Your task to perform on an android device: Go to Yahoo.com Image 0: 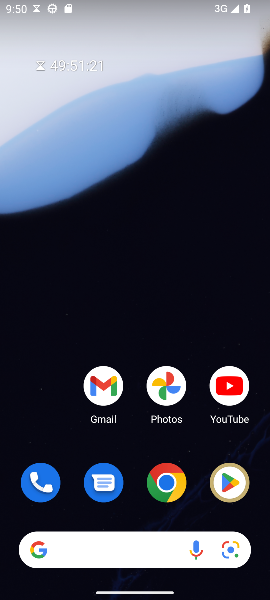
Step 0: drag from (143, 495) to (178, 128)
Your task to perform on an android device: Go to Yahoo.com Image 1: 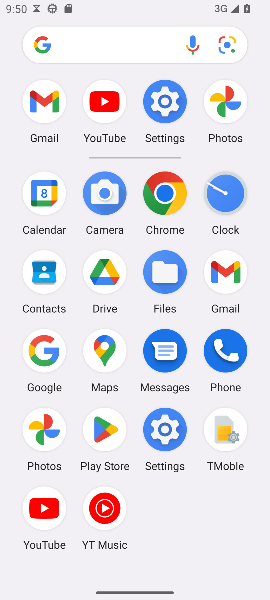
Step 1: click (167, 186)
Your task to perform on an android device: Go to Yahoo.com Image 2: 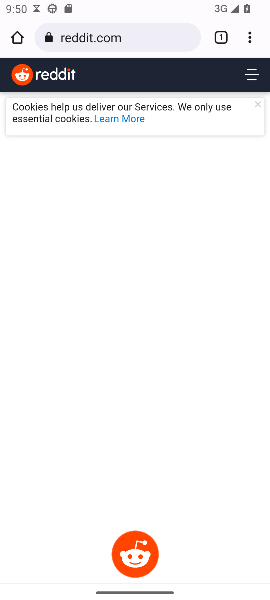
Step 2: press back button
Your task to perform on an android device: Go to Yahoo.com Image 3: 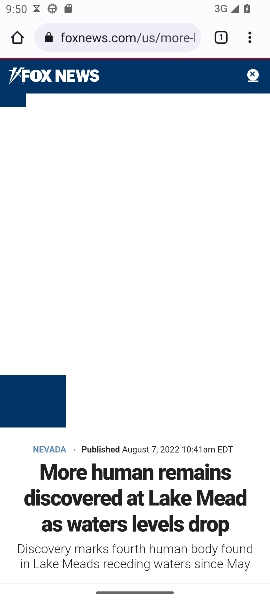
Step 3: press back button
Your task to perform on an android device: Go to Yahoo.com Image 4: 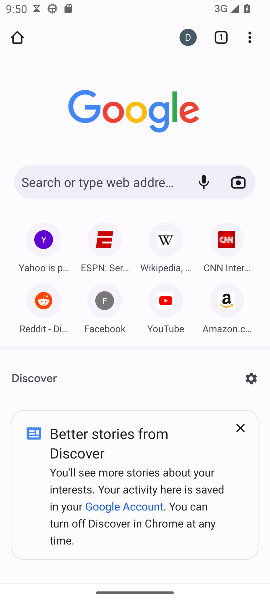
Step 4: click (35, 245)
Your task to perform on an android device: Go to Yahoo.com Image 5: 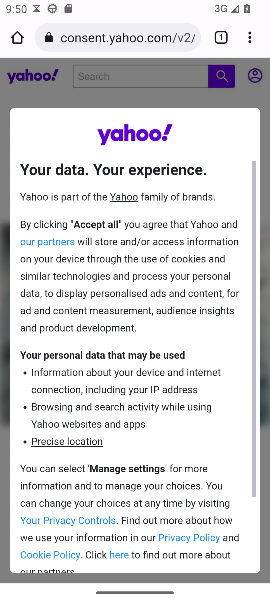
Step 5: task complete